Your task to perform on an android device: Go to Android settings Image 0: 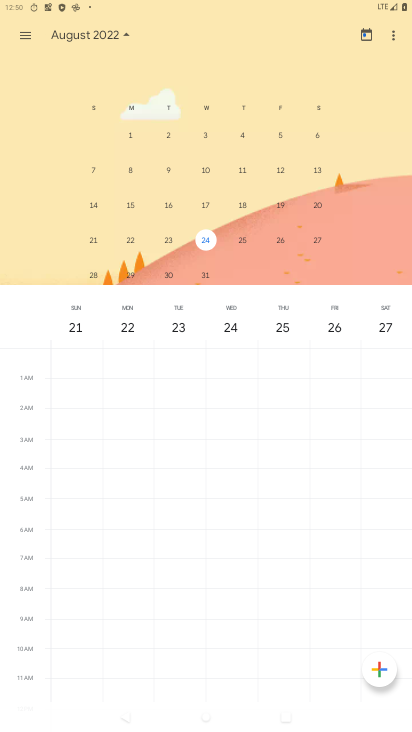
Step 0: press home button
Your task to perform on an android device: Go to Android settings Image 1: 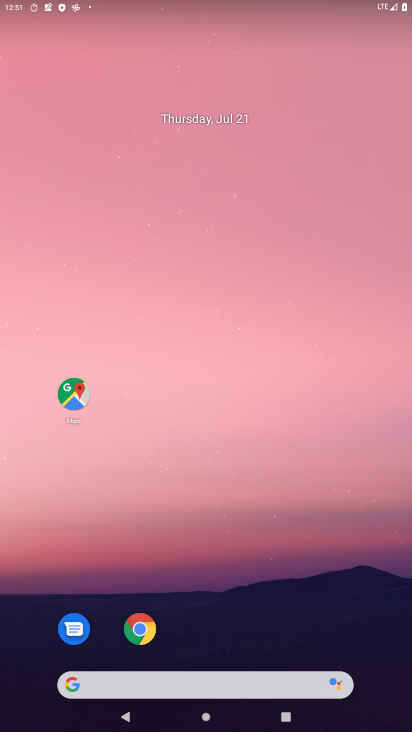
Step 1: drag from (165, 683) to (172, 97)
Your task to perform on an android device: Go to Android settings Image 2: 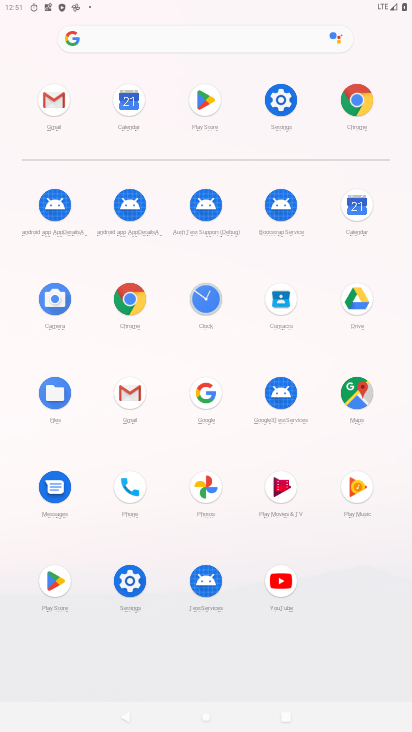
Step 2: click (286, 110)
Your task to perform on an android device: Go to Android settings Image 3: 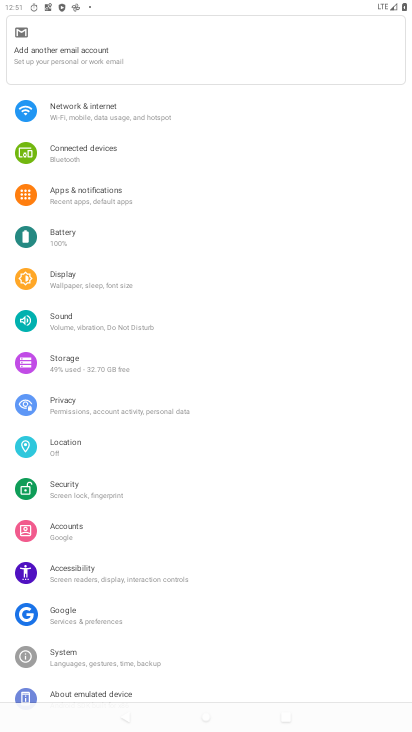
Step 3: drag from (187, 725) to (146, 320)
Your task to perform on an android device: Go to Android settings Image 4: 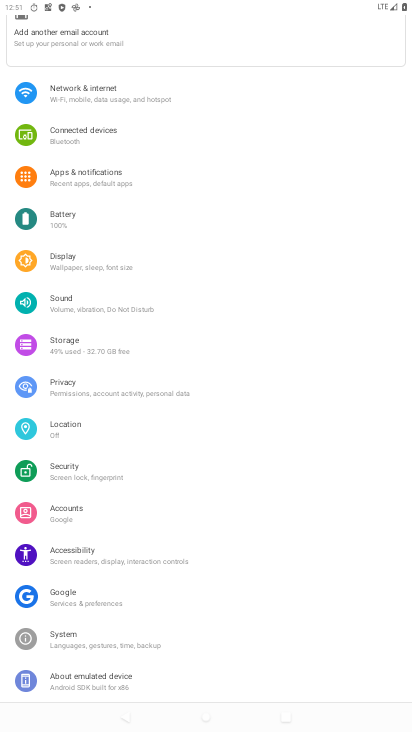
Step 4: click (151, 683)
Your task to perform on an android device: Go to Android settings Image 5: 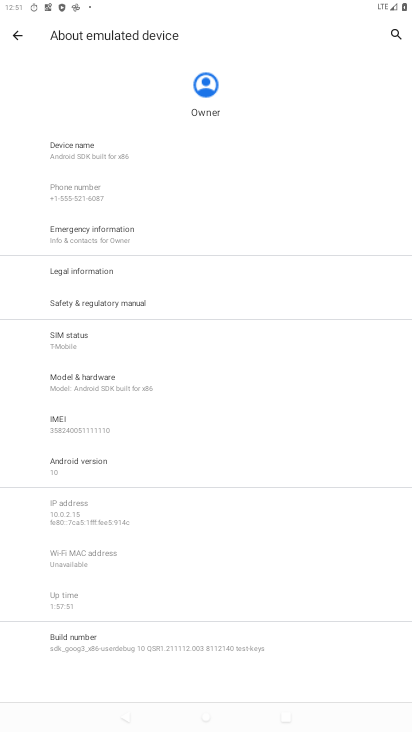
Step 5: click (83, 456)
Your task to perform on an android device: Go to Android settings Image 6: 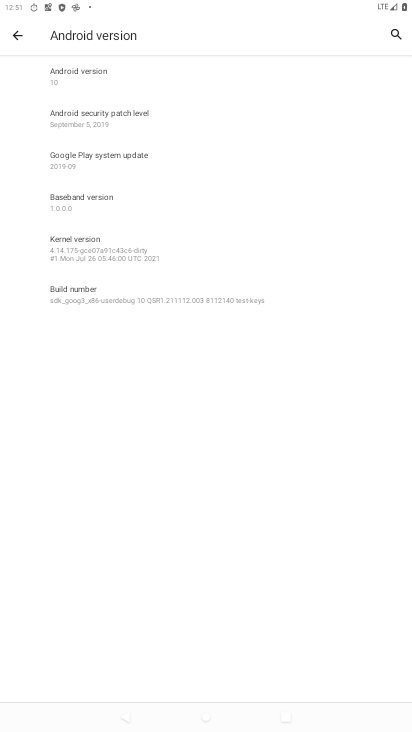
Step 6: task complete